Your task to perform on an android device: Clear all items from cart on amazon.com. Add "usb-c to usb-a" to the cart on amazon.com, then select checkout. Image 0: 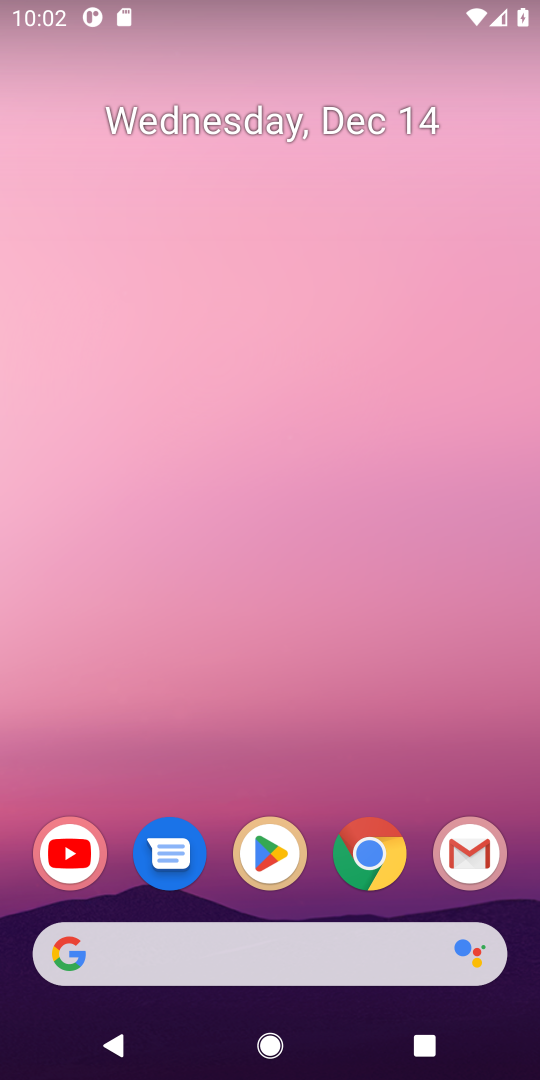
Step 0: click (371, 864)
Your task to perform on an android device: Clear all items from cart on amazon.com. Add "usb-c to usb-a" to the cart on amazon.com, then select checkout. Image 1: 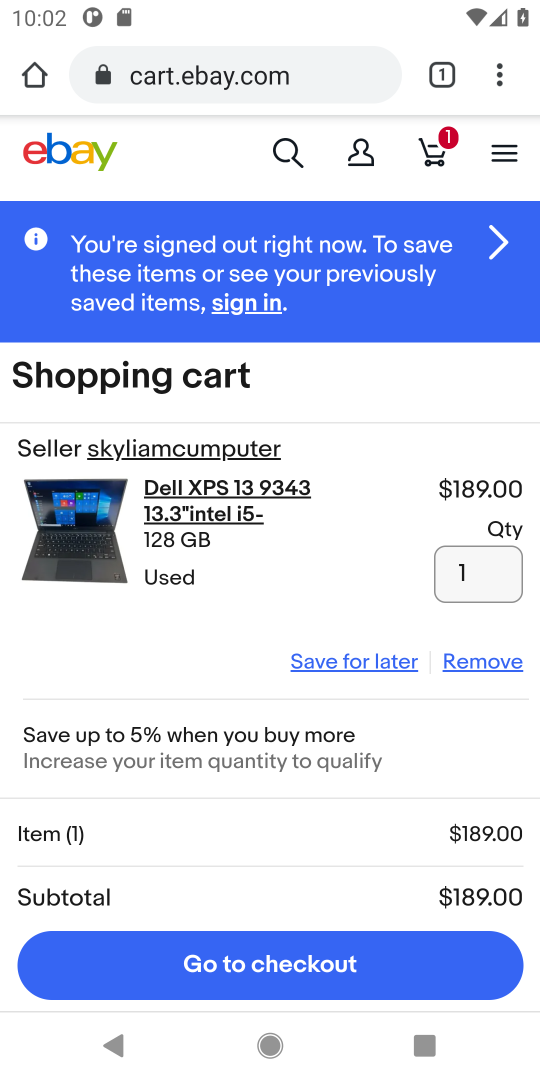
Step 1: click (32, 78)
Your task to perform on an android device: Clear all items from cart on amazon.com. Add "usb-c to usb-a" to the cart on amazon.com, then select checkout. Image 2: 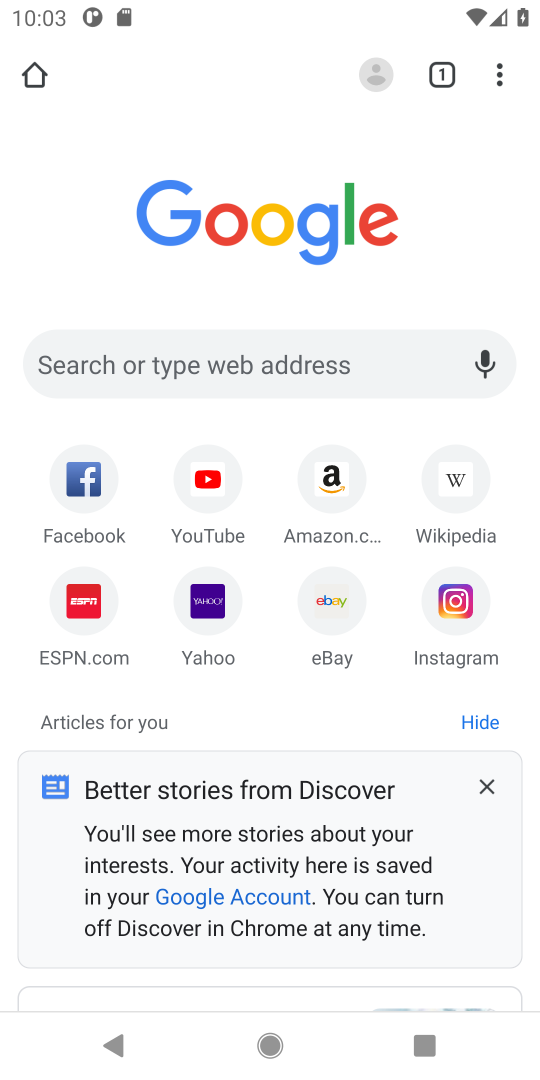
Step 2: click (330, 464)
Your task to perform on an android device: Clear all items from cart on amazon.com. Add "usb-c to usb-a" to the cart on amazon.com, then select checkout. Image 3: 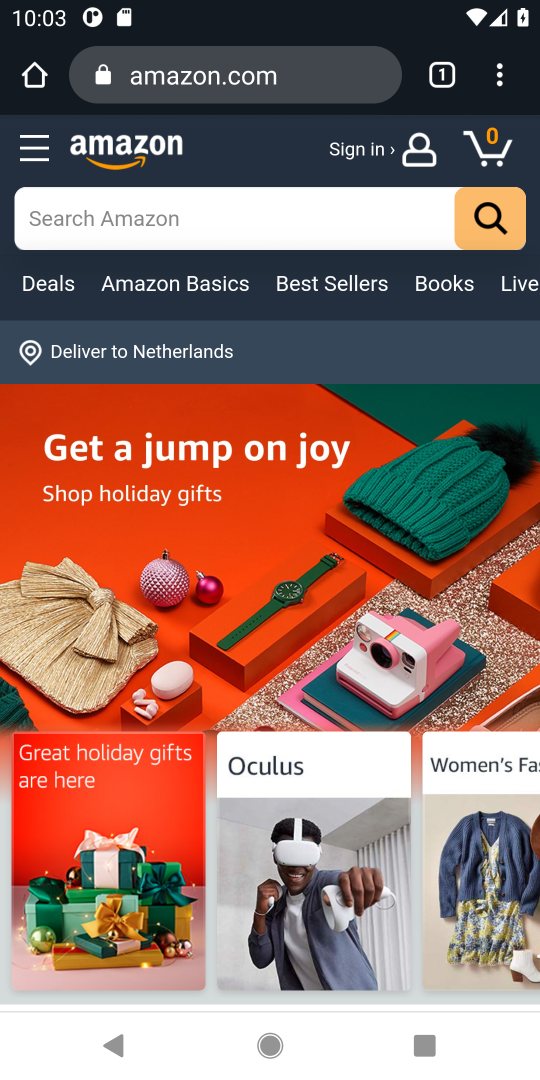
Step 3: click (498, 141)
Your task to perform on an android device: Clear all items from cart on amazon.com. Add "usb-c to usb-a" to the cart on amazon.com, then select checkout. Image 4: 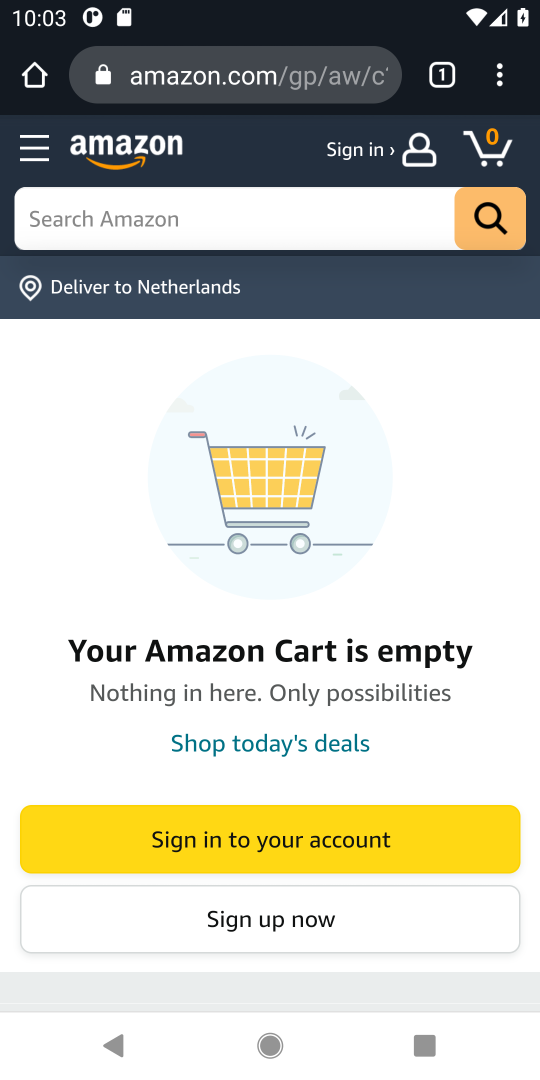
Step 4: click (266, 215)
Your task to perform on an android device: Clear all items from cart on amazon.com. Add "usb-c to usb-a" to the cart on amazon.com, then select checkout. Image 5: 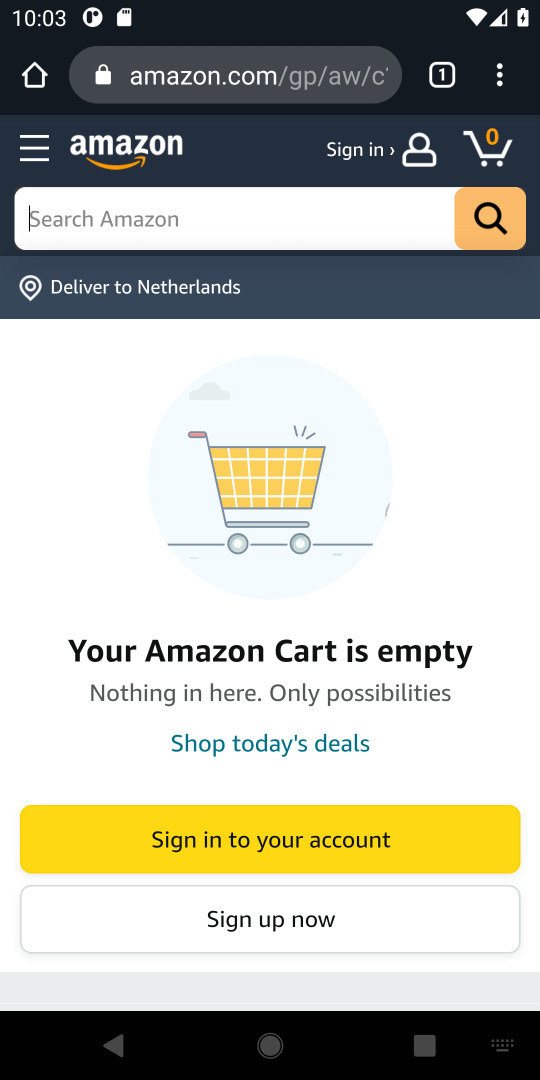
Step 5: press enter
Your task to perform on an android device: Clear all items from cart on amazon.com. Add "usb-c to usb-a" to the cart on amazon.com, then select checkout. Image 6: 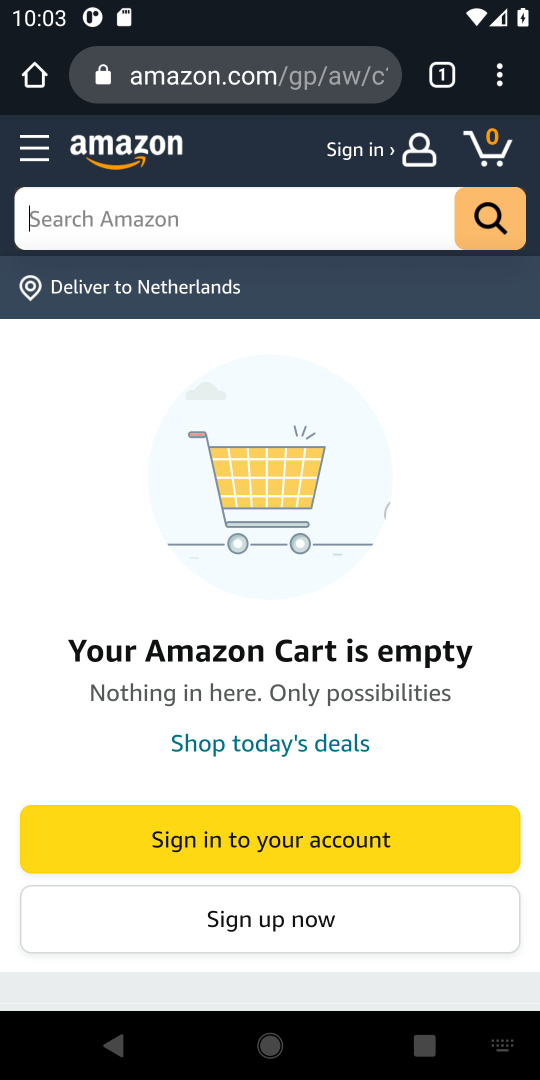
Step 6: type "usb-c to usb-a"
Your task to perform on an android device: Clear all items from cart on amazon.com. Add "usb-c to usb-a" to the cart on amazon.com, then select checkout. Image 7: 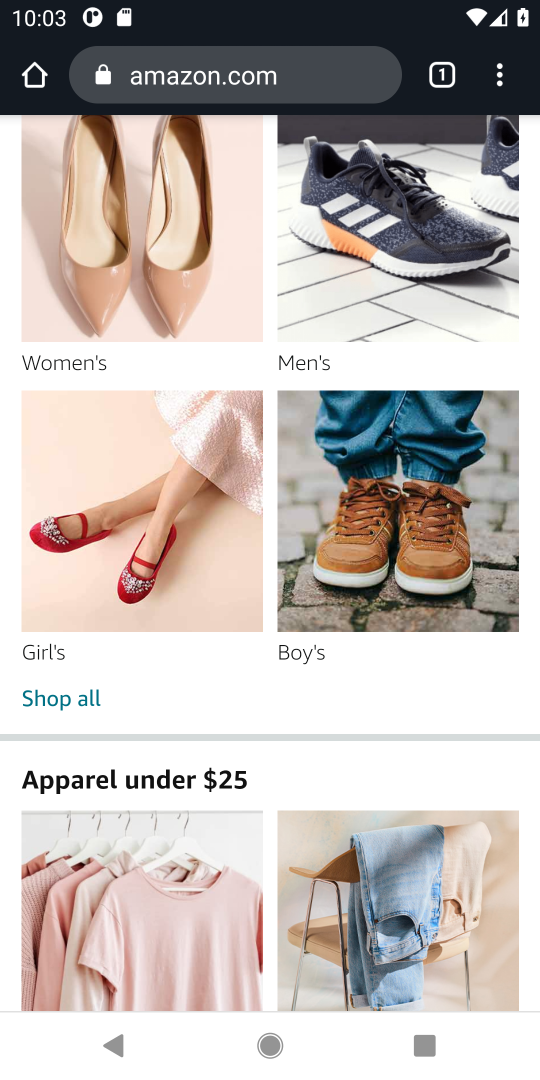
Step 7: press back button
Your task to perform on an android device: Clear all items from cart on amazon.com. Add "usb-c to usb-a" to the cart on amazon.com, then select checkout. Image 8: 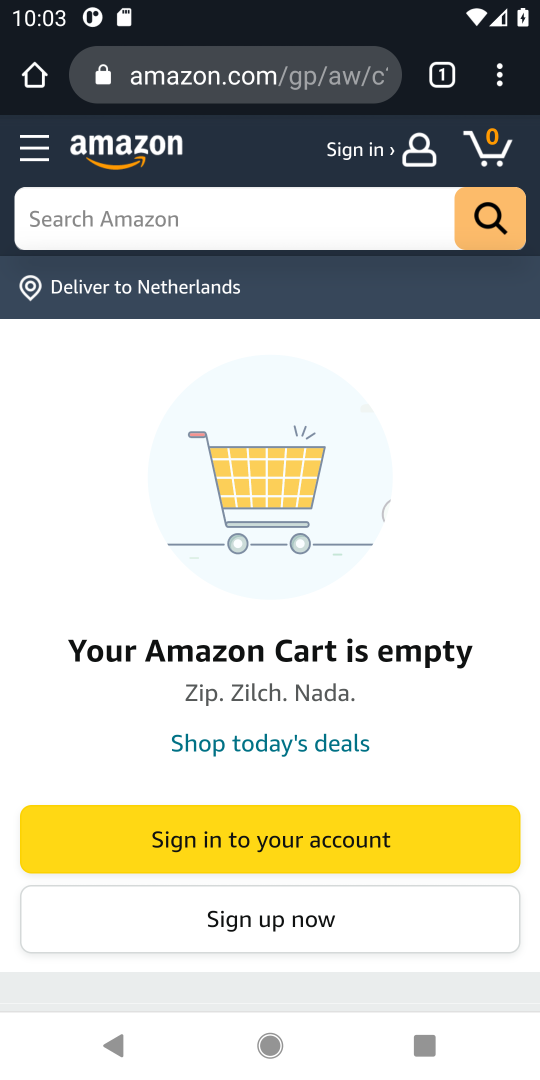
Step 8: click (366, 208)
Your task to perform on an android device: Clear all items from cart on amazon.com. Add "usb-c to usb-a" to the cart on amazon.com, then select checkout. Image 9: 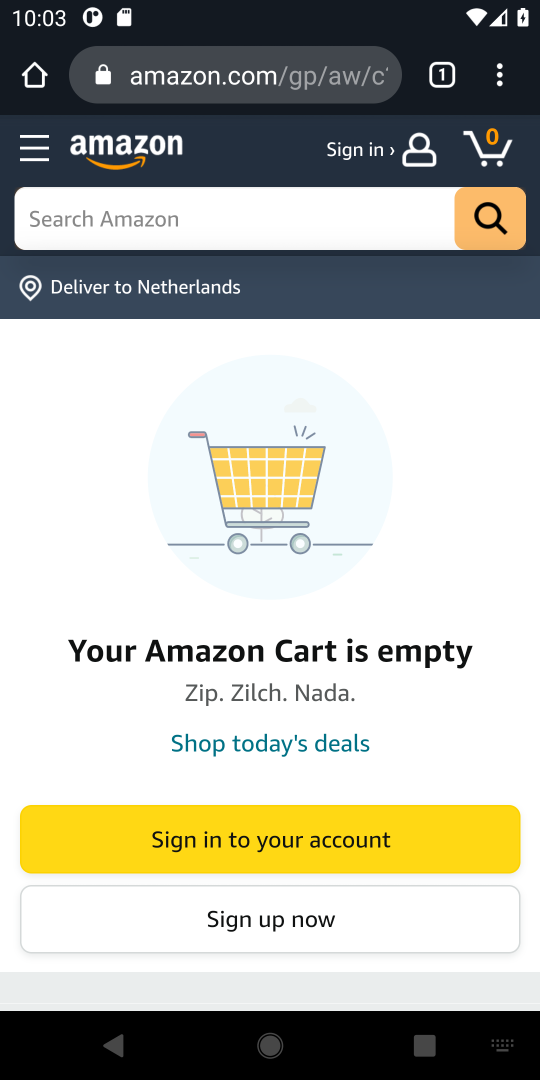
Step 9: press enter
Your task to perform on an android device: Clear all items from cart on amazon.com. Add "usb-c to usb-a" to the cart on amazon.com, then select checkout. Image 10: 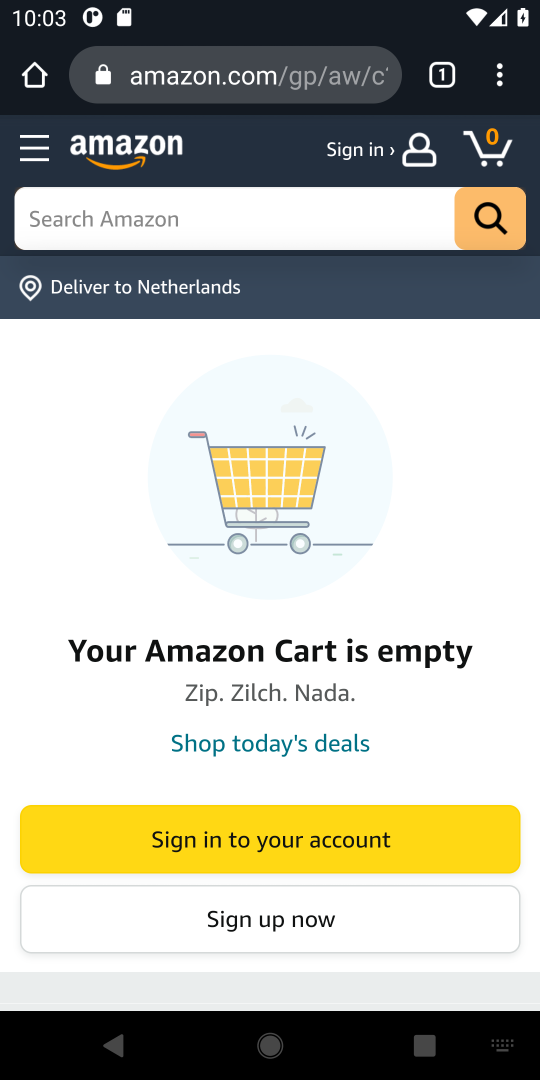
Step 10: type "usb-c to usb-a"
Your task to perform on an android device: Clear all items from cart on amazon.com. Add "usb-c to usb-a" to the cart on amazon.com, then select checkout. Image 11: 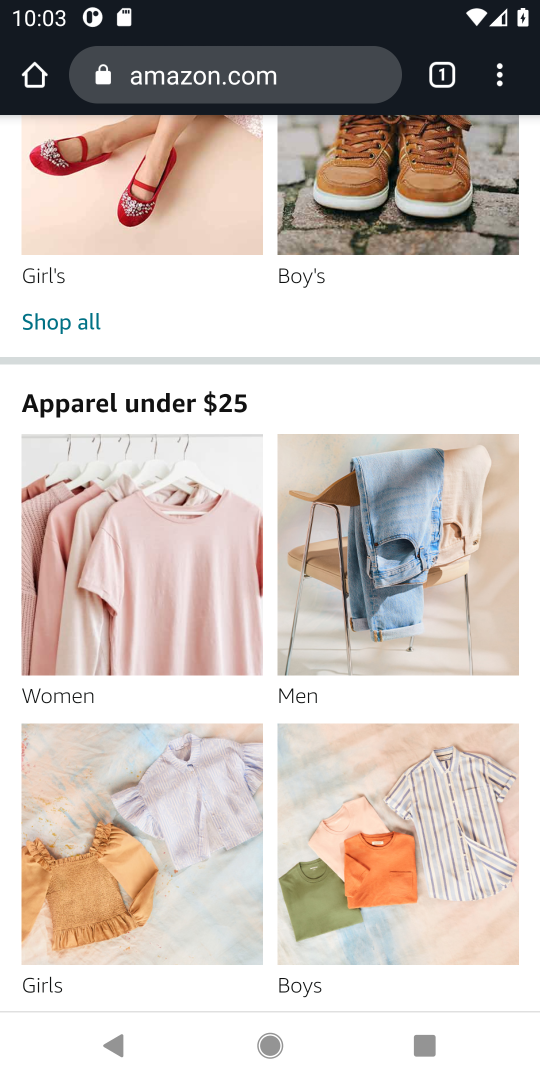
Step 11: task complete